Your task to perform on an android device: turn off improve location accuracy Image 0: 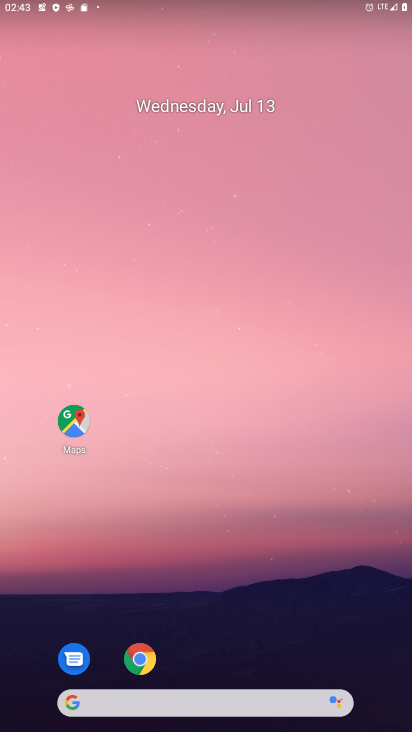
Step 0: drag from (207, 725) to (211, 215)
Your task to perform on an android device: turn off improve location accuracy Image 1: 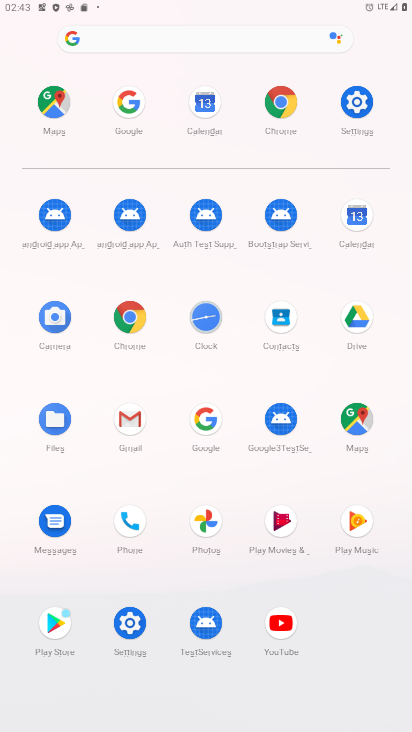
Step 1: click (356, 102)
Your task to perform on an android device: turn off improve location accuracy Image 2: 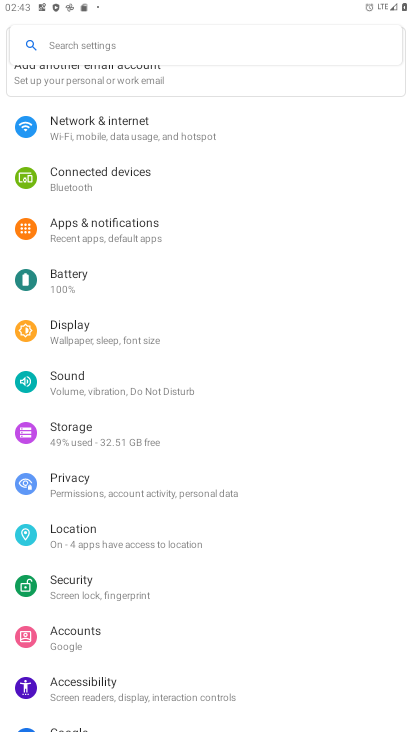
Step 2: click (75, 535)
Your task to perform on an android device: turn off improve location accuracy Image 3: 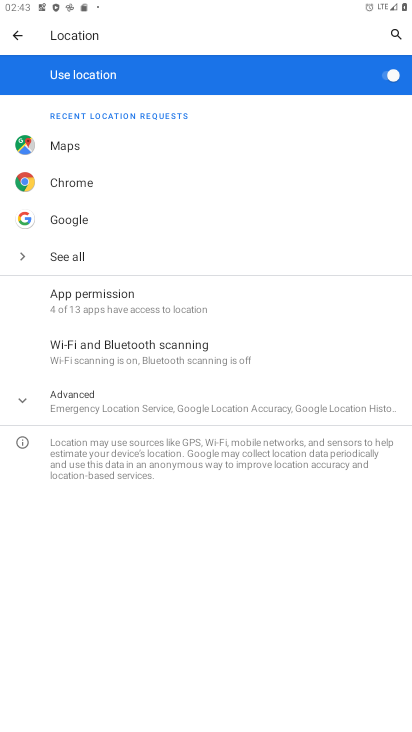
Step 3: click (127, 402)
Your task to perform on an android device: turn off improve location accuracy Image 4: 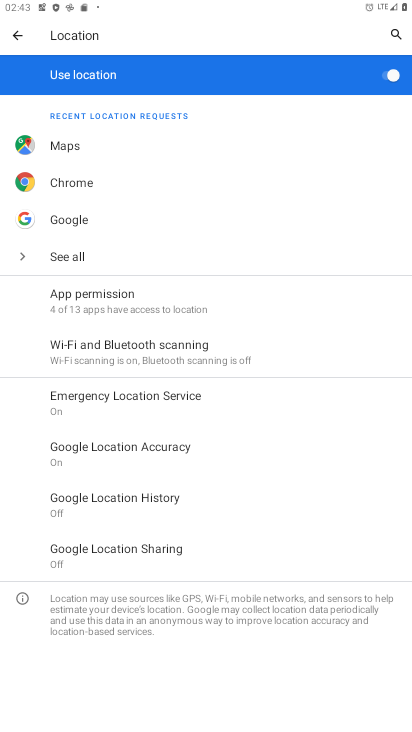
Step 4: click (150, 445)
Your task to perform on an android device: turn off improve location accuracy Image 5: 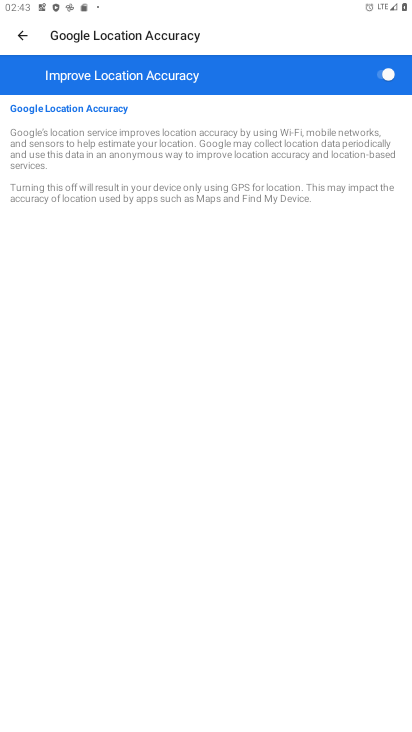
Step 5: click (372, 77)
Your task to perform on an android device: turn off improve location accuracy Image 6: 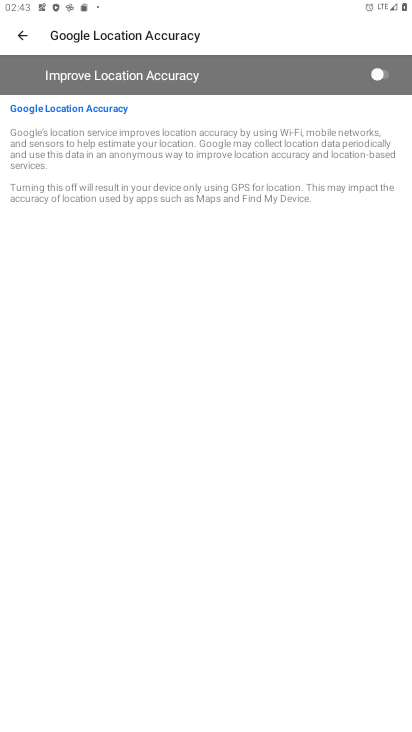
Step 6: task complete